Your task to perform on an android device: search for accent chairs on article.com Image 0: 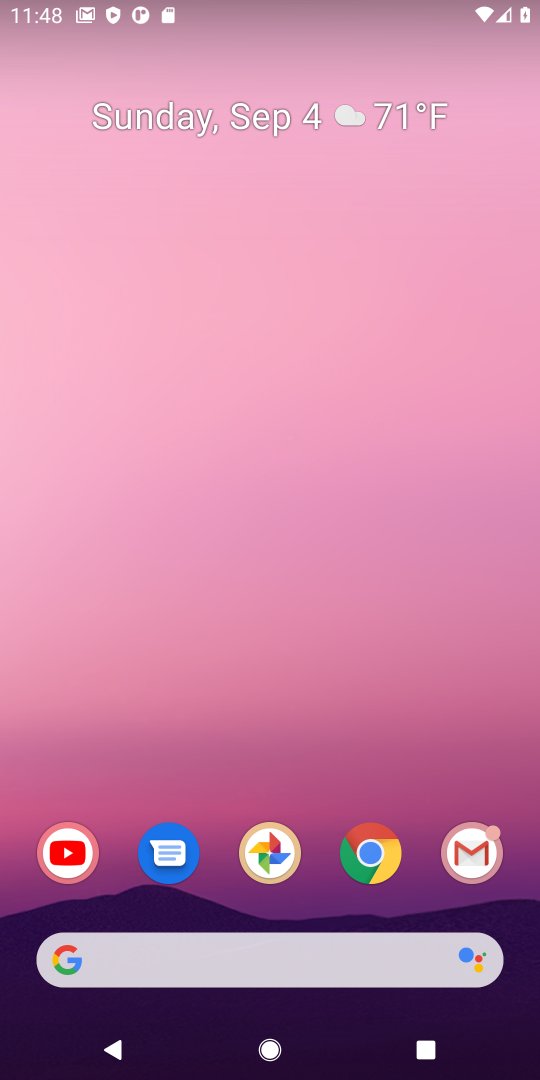
Step 0: click (366, 863)
Your task to perform on an android device: search for accent chairs on article.com Image 1: 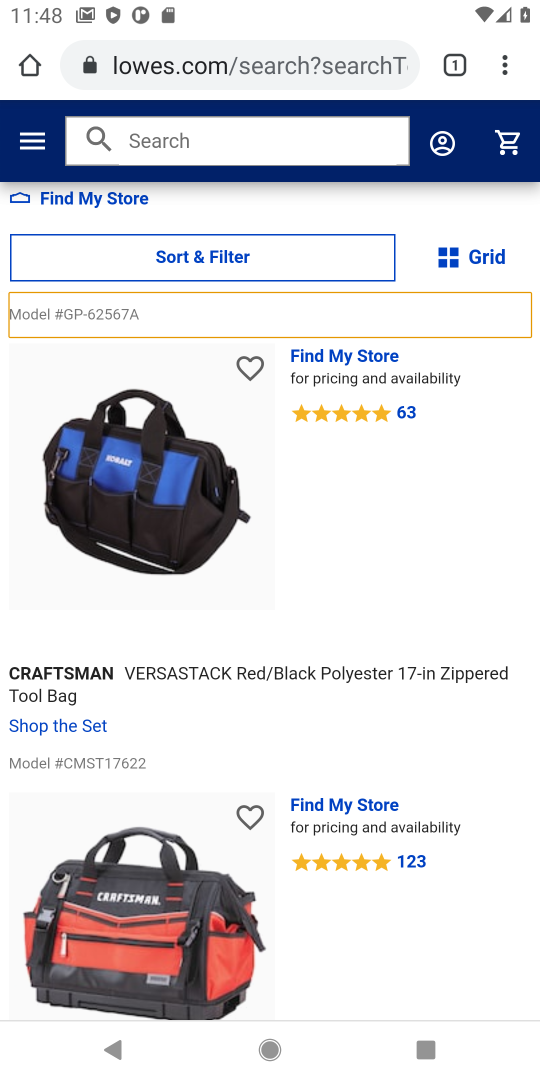
Step 1: click (371, 68)
Your task to perform on an android device: search for accent chairs on article.com Image 2: 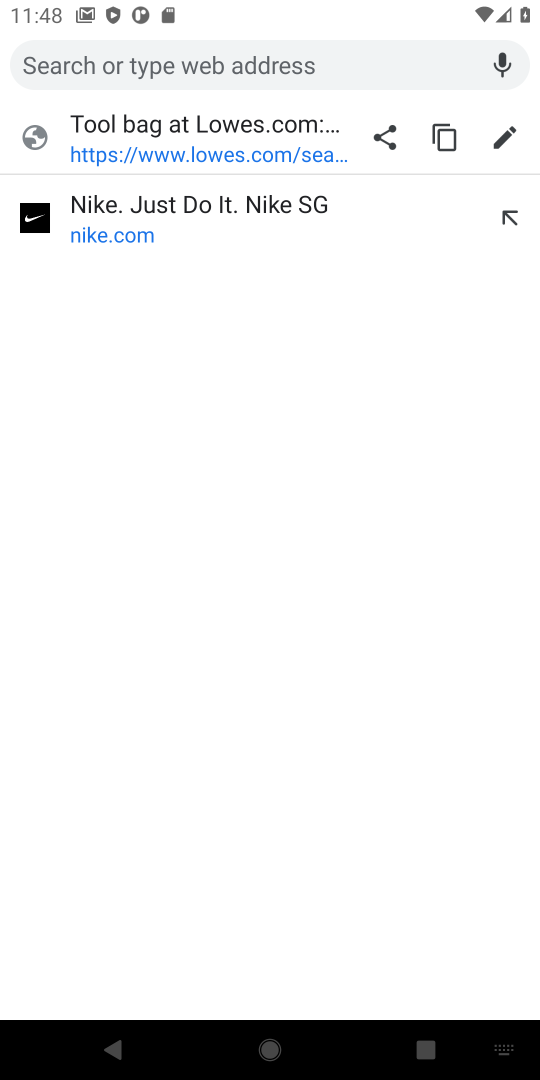
Step 2: type " article.com"
Your task to perform on an android device: search for accent chairs on article.com Image 3: 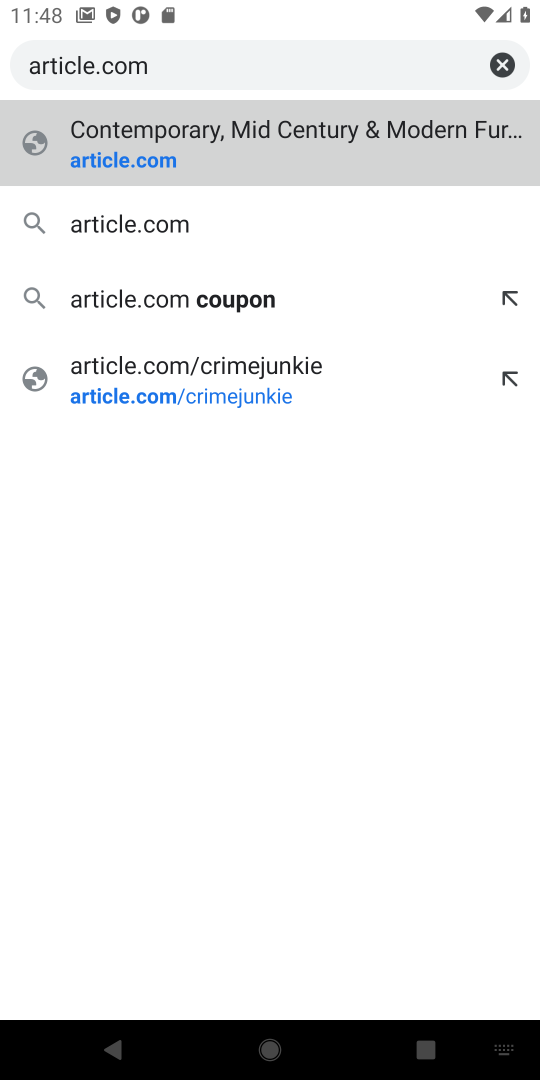
Step 3: press enter
Your task to perform on an android device: search for accent chairs on article.com Image 4: 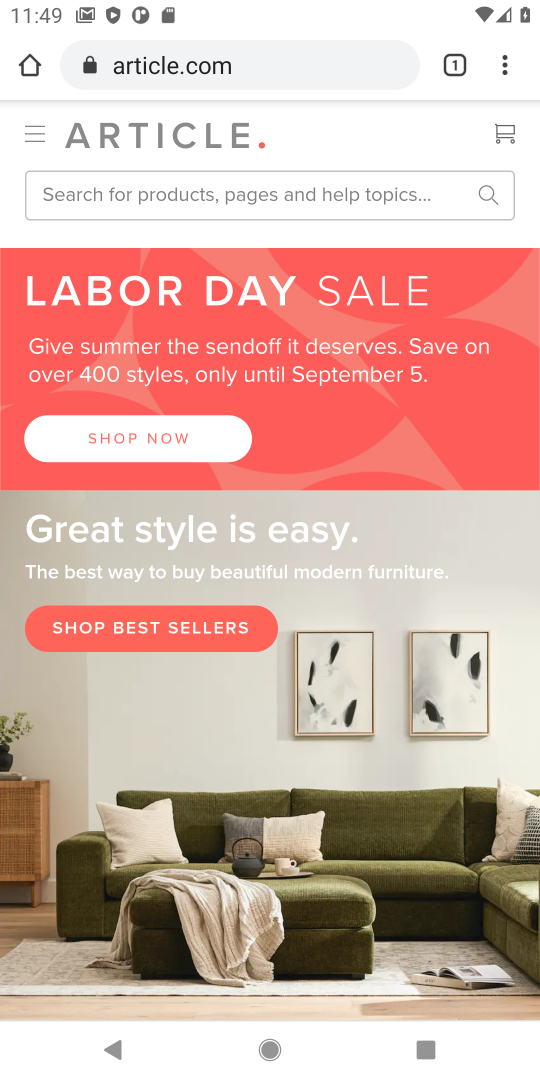
Step 4: click (273, 194)
Your task to perform on an android device: search for accent chairs on article.com Image 5: 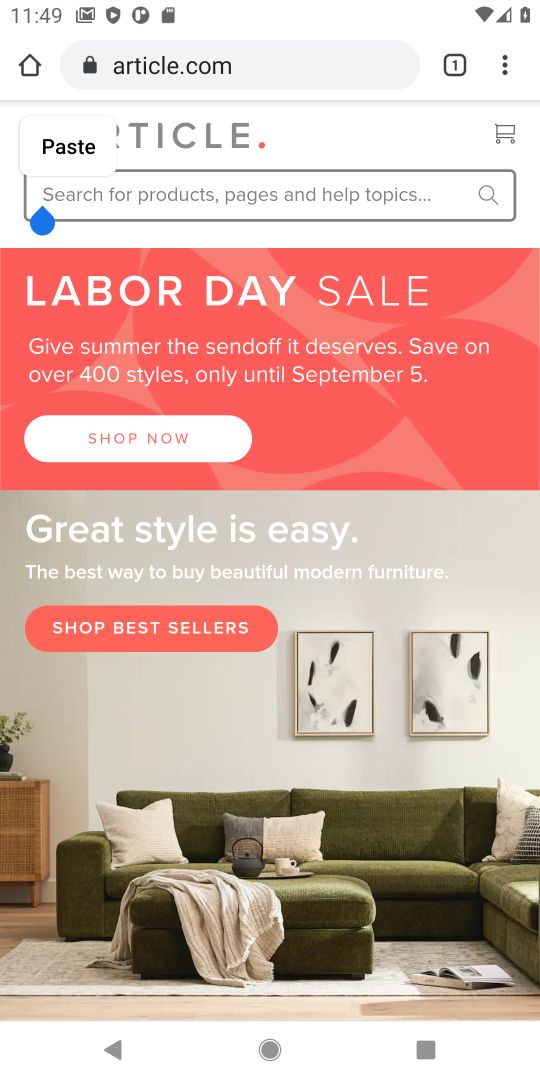
Step 5: type "accent chairs "
Your task to perform on an android device: search for accent chairs on article.com Image 6: 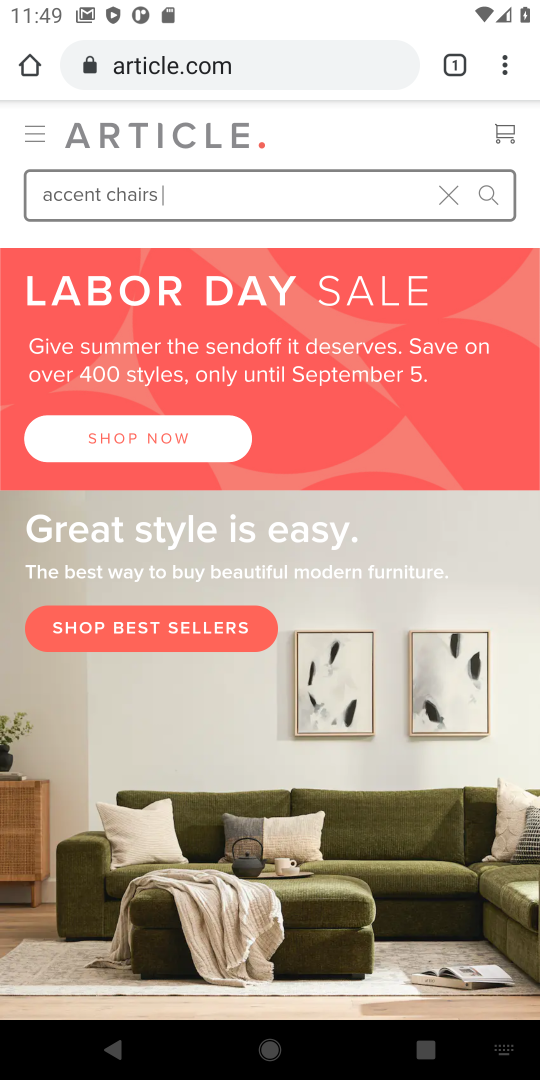
Step 6: press enter
Your task to perform on an android device: search for accent chairs on article.com Image 7: 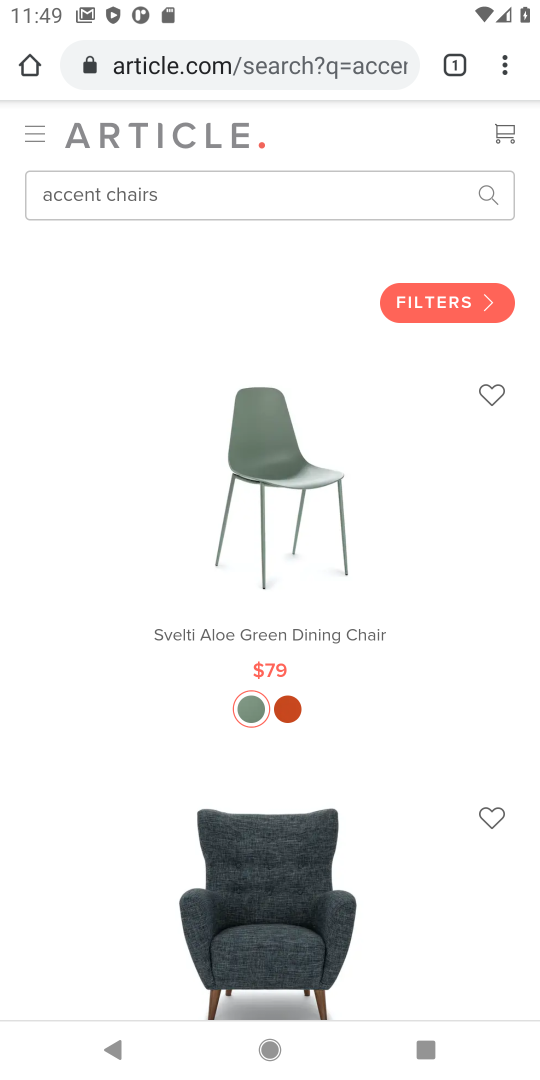
Step 7: task complete